Your task to perform on an android device: toggle location history Image 0: 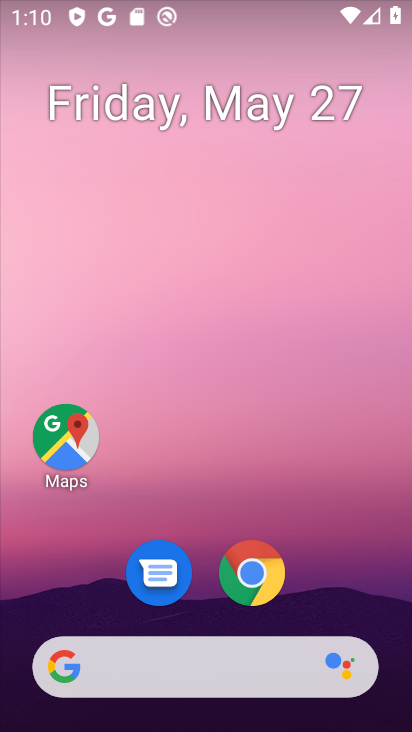
Step 0: drag from (231, 612) to (289, 99)
Your task to perform on an android device: toggle location history Image 1: 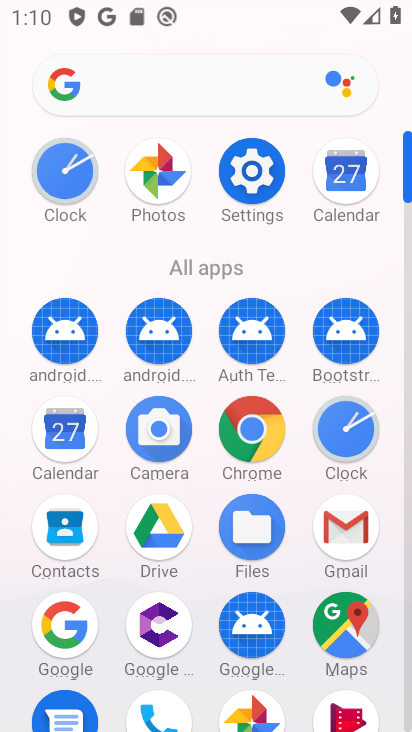
Step 1: click (248, 181)
Your task to perform on an android device: toggle location history Image 2: 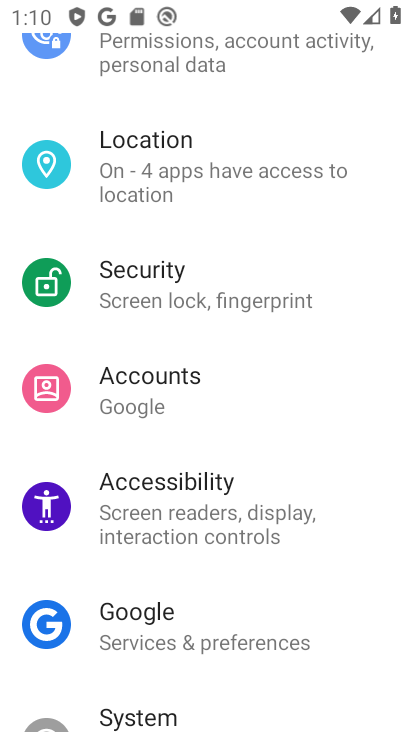
Step 2: click (155, 150)
Your task to perform on an android device: toggle location history Image 3: 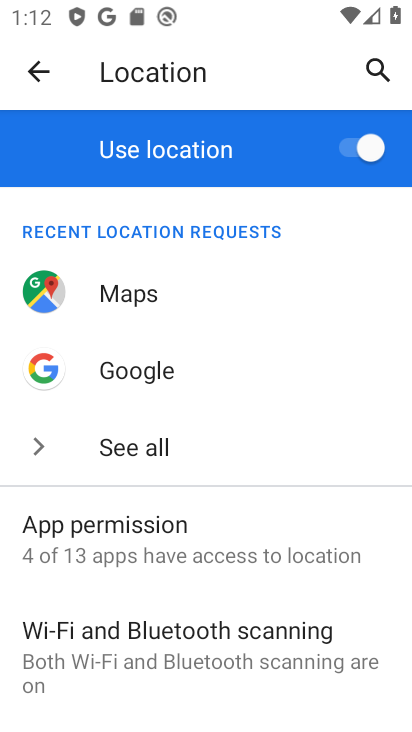
Step 3: drag from (222, 592) to (202, 115)
Your task to perform on an android device: toggle location history Image 4: 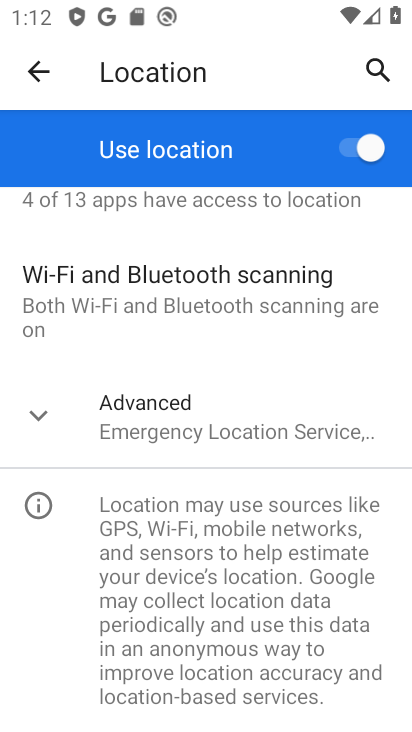
Step 4: click (171, 435)
Your task to perform on an android device: toggle location history Image 5: 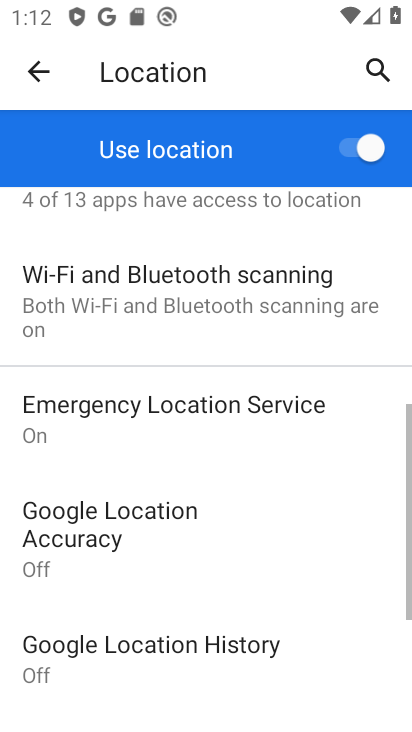
Step 5: click (185, 631)
Your task to perform on an android device: toggle location history Image 6: 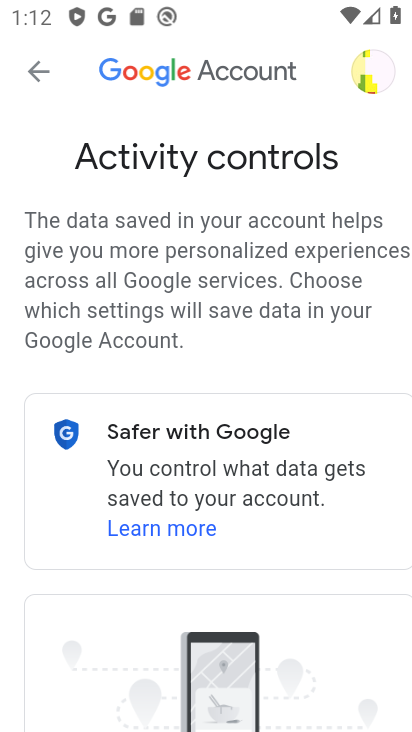
Step 6: drag from (123, 579) to (97, 243)
Your task to perform on an android device: toggle location history Image 7: 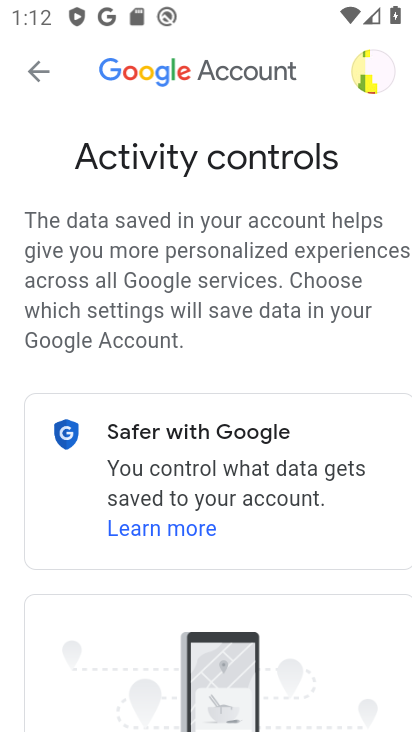
Step 7: drag from (214, 558) to (144, 123)
Your task to perform on an android device: toggle location history Image 8: 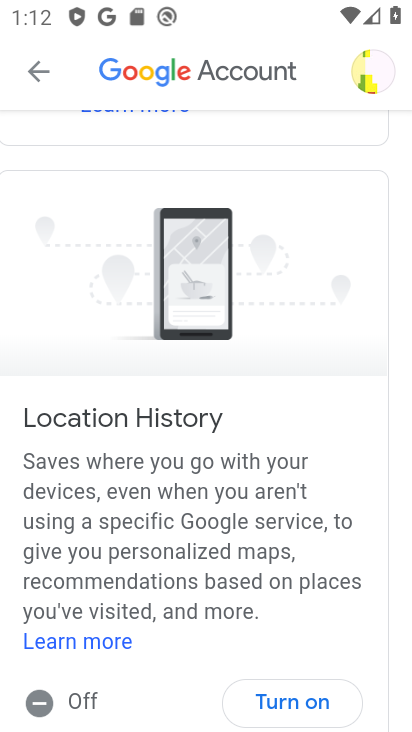
Step 8: drag from (285, 613) to (252, 414)
Your task to perform on an android device: toggle location history Image 9: 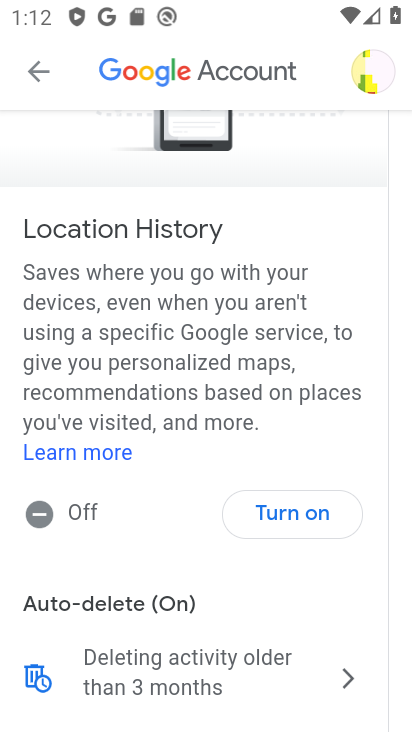
Step 9: click (290, 521)
Your task to perform on an android device: toggle location history Image 10: 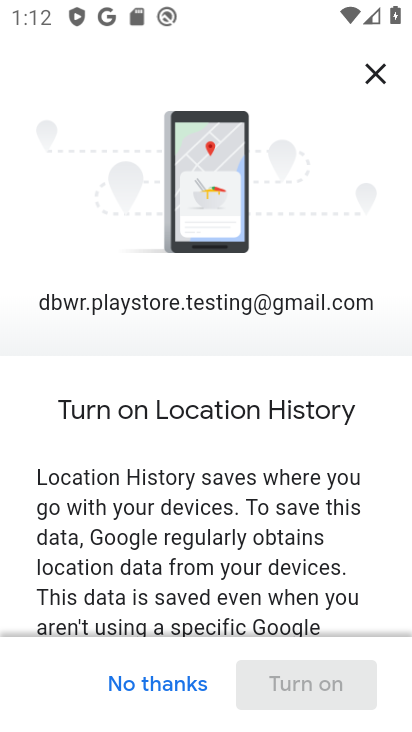
Step 10: drag from (324, 587) to (289, 347)
Your task to perform on an android device: toggle location history Image 11: 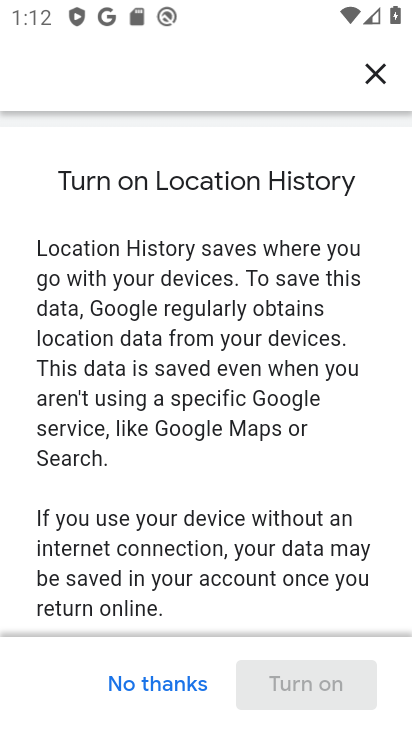
Step 11: drag from (317, 552) to (237, 144)
Your task to perform on an android device: toggle location history Image 12: 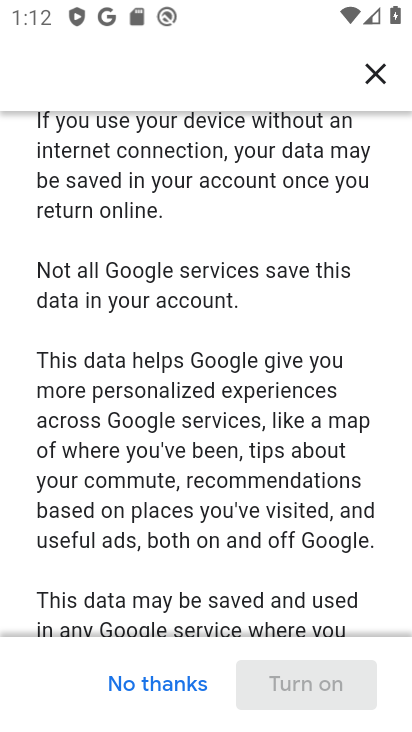
Step 12: drag from (273, 483) to (210, 115)
Your task to perform on an android device: toggle location history Image 13: 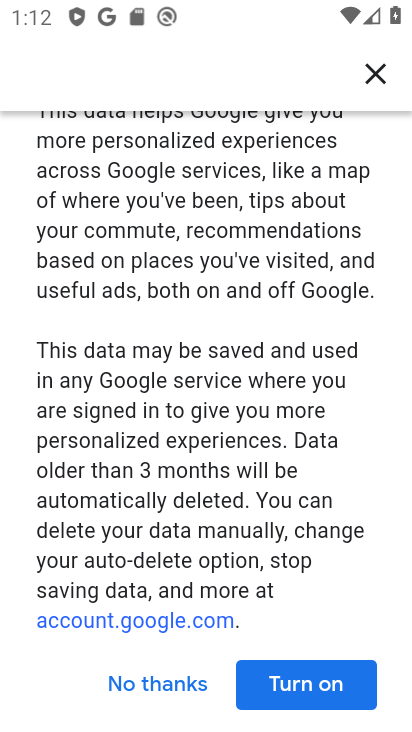
Step 13: click (315, 673)
Your task to perform on an android device: toggle location history Image 14: 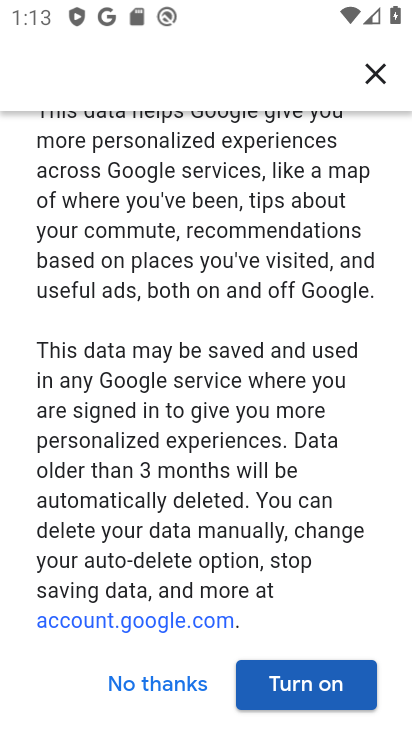
Step 14: click (345, 654)
Your task to perform on an android device: toggle location history Image 15: 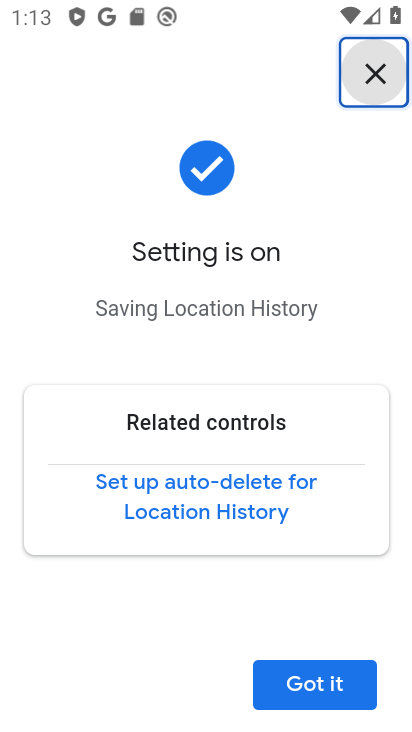
Step 15: click (339, 675)
Your task to perform on an android device: toggle location history Image 16: 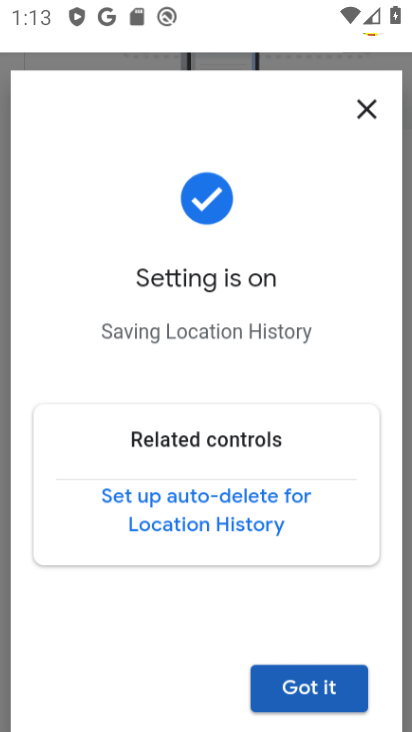
Step 16: task complete